Your task to perform on an android device: View the shopping cart on walmart. Add lg ultragear to the cart on walmart, then select checkout. Image 0: 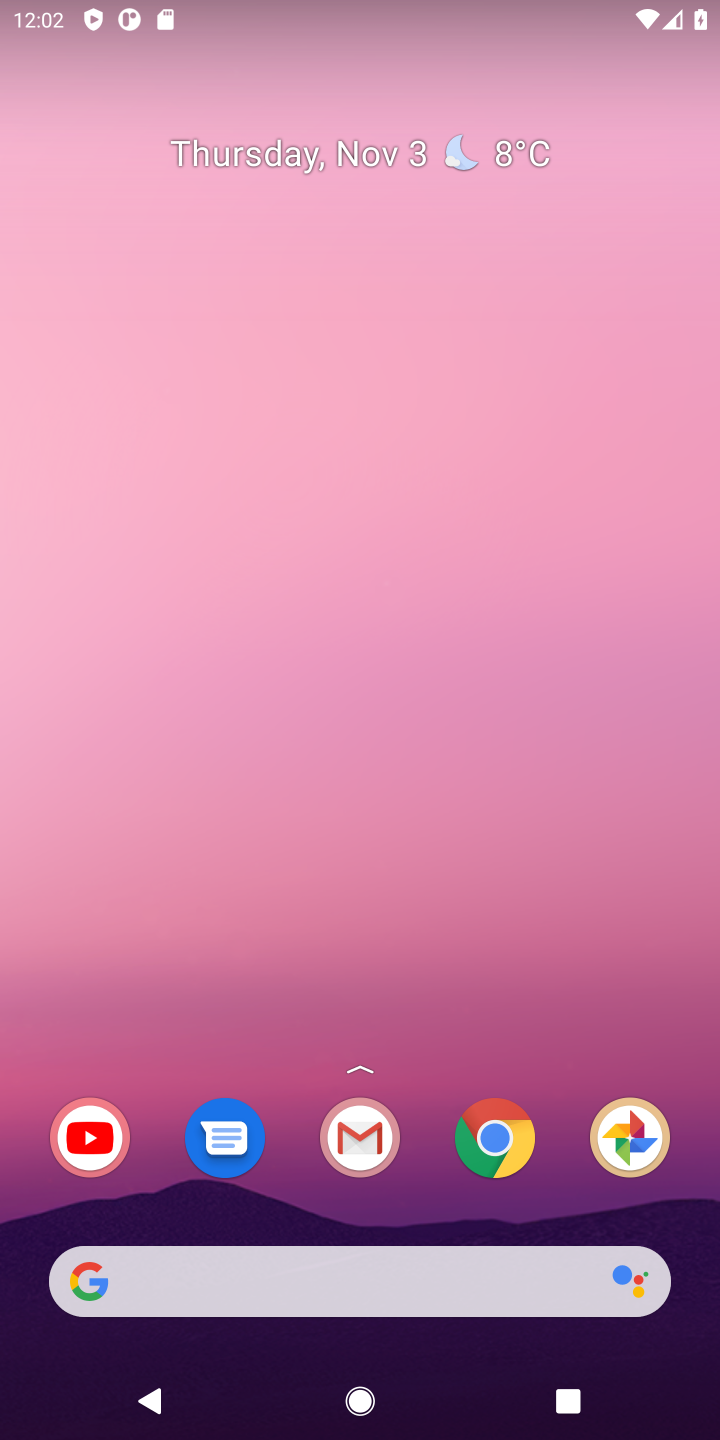
Step 0: click (506, 1111)
Your task to perform on an android device: View the shopping cart on walmart. Add lg ultragear to the cart on walmart, then select checkout. Image 1: 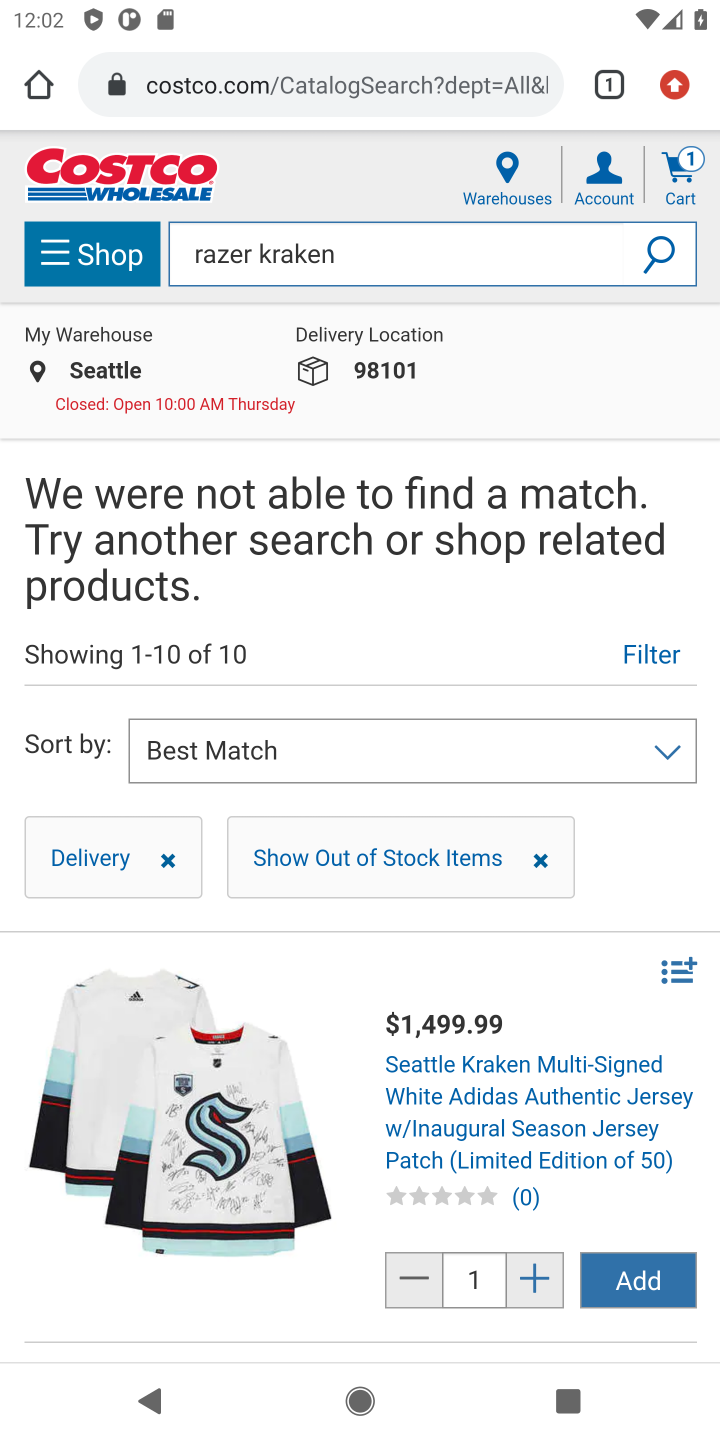
Step 1: click (285, 94)
Your task to perform on an android device: View the shopping cart on walmart. Add lg ultragear to the cart on walmart, then select checkout. Image 2: 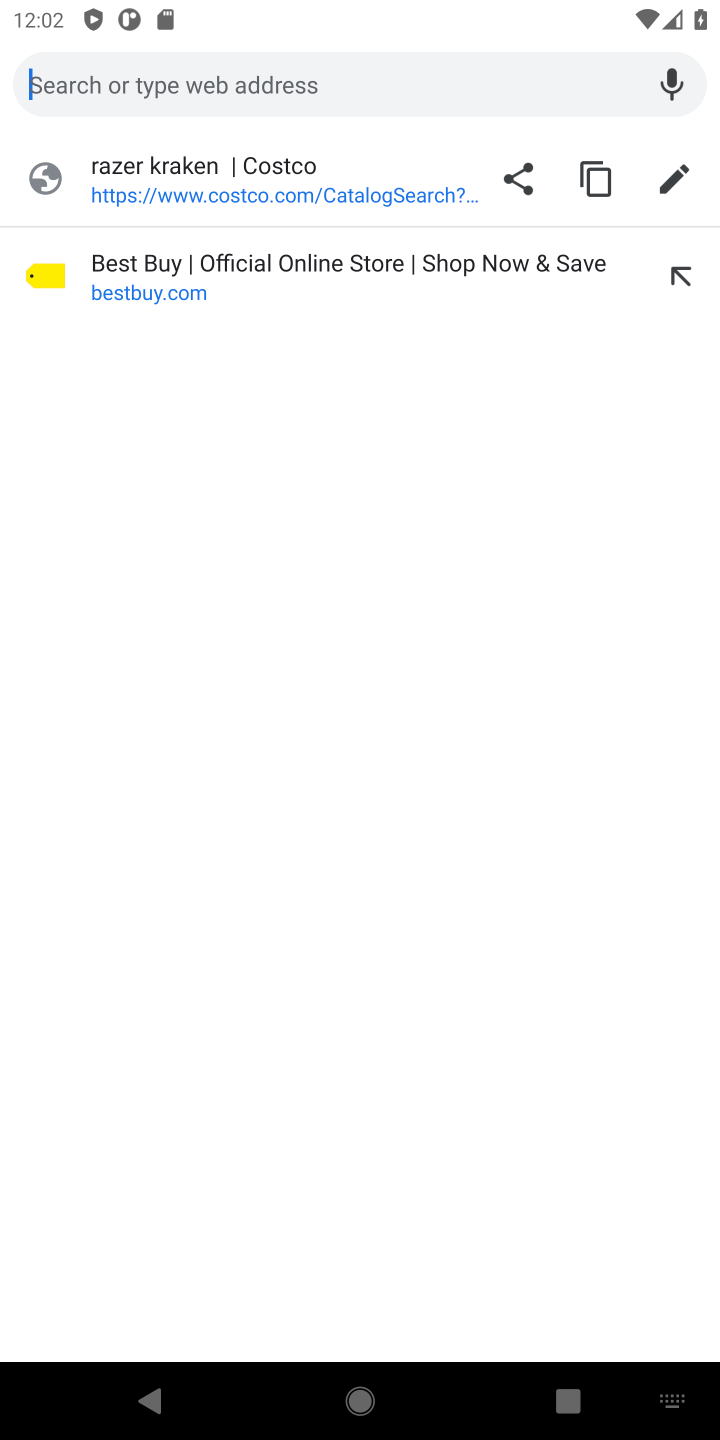
Step 2: type "walmart"
Your task to perform on an android device: View the shopping cart on walmart. Add lg ultragear to the cart on walmart, then select checkout. Image 3: 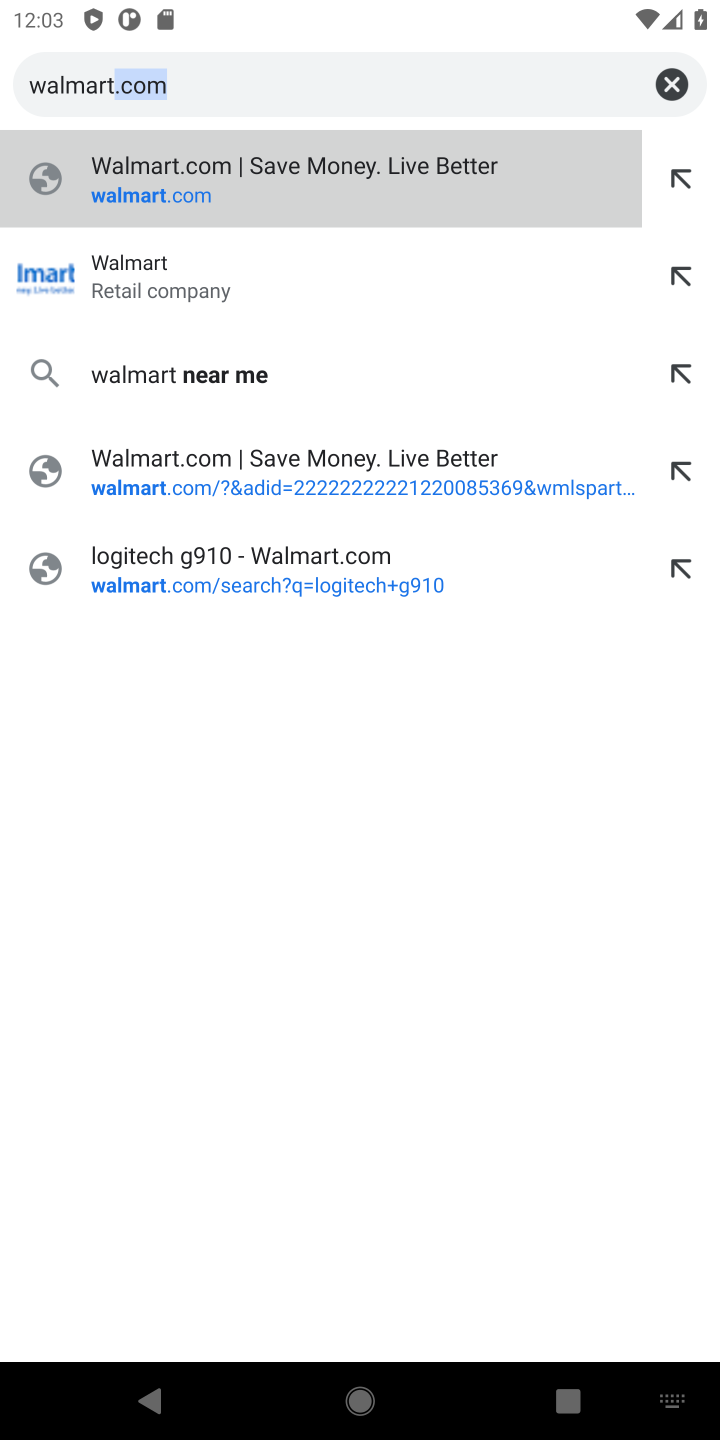
Step 3: click (196, 270)
Your task to perform on an android device: View the shopping cart on walmart. Add lg ultragear to the cart on walmart, then select checkout. Image 4: 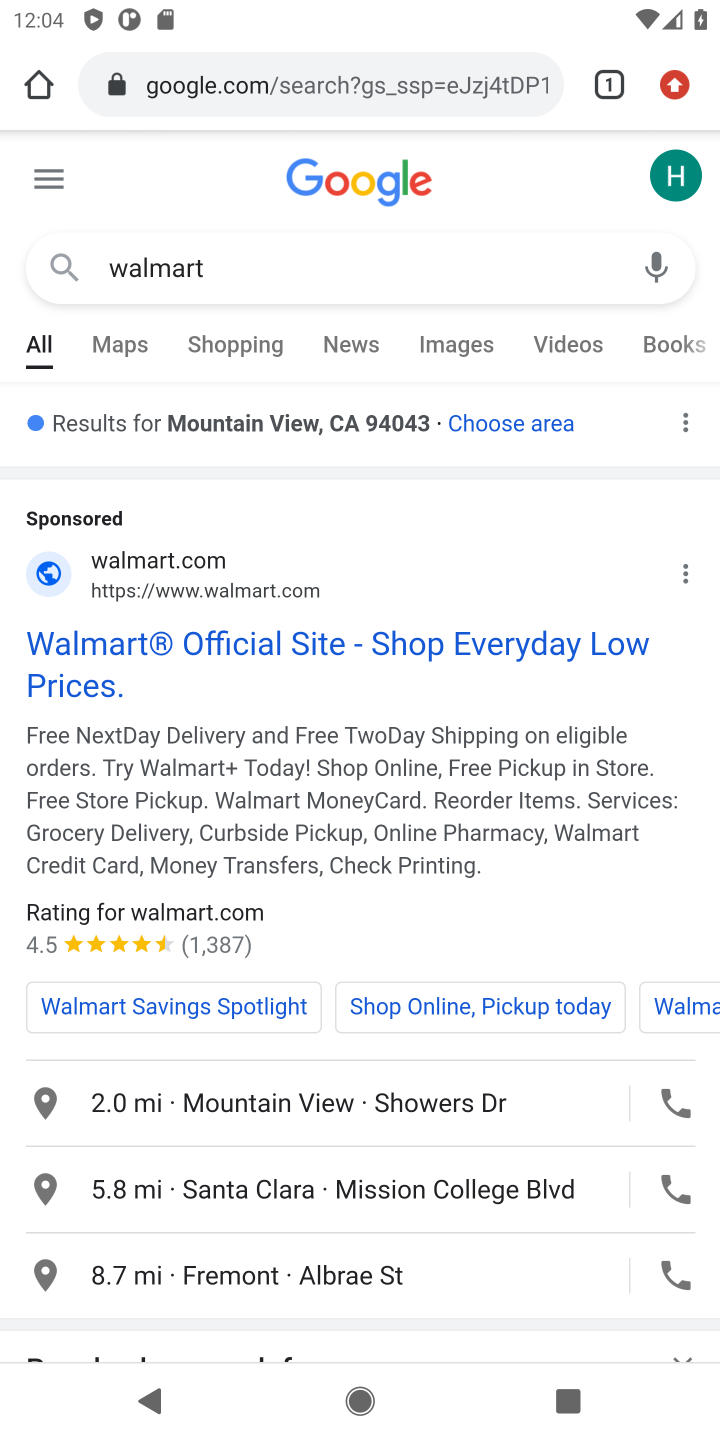
Step 4: click (76, 661)
Your task to perform on an android device: View the shopping cart on walmart. Add lg ultragear to the cart on walmart, then select checkout. Image 5: 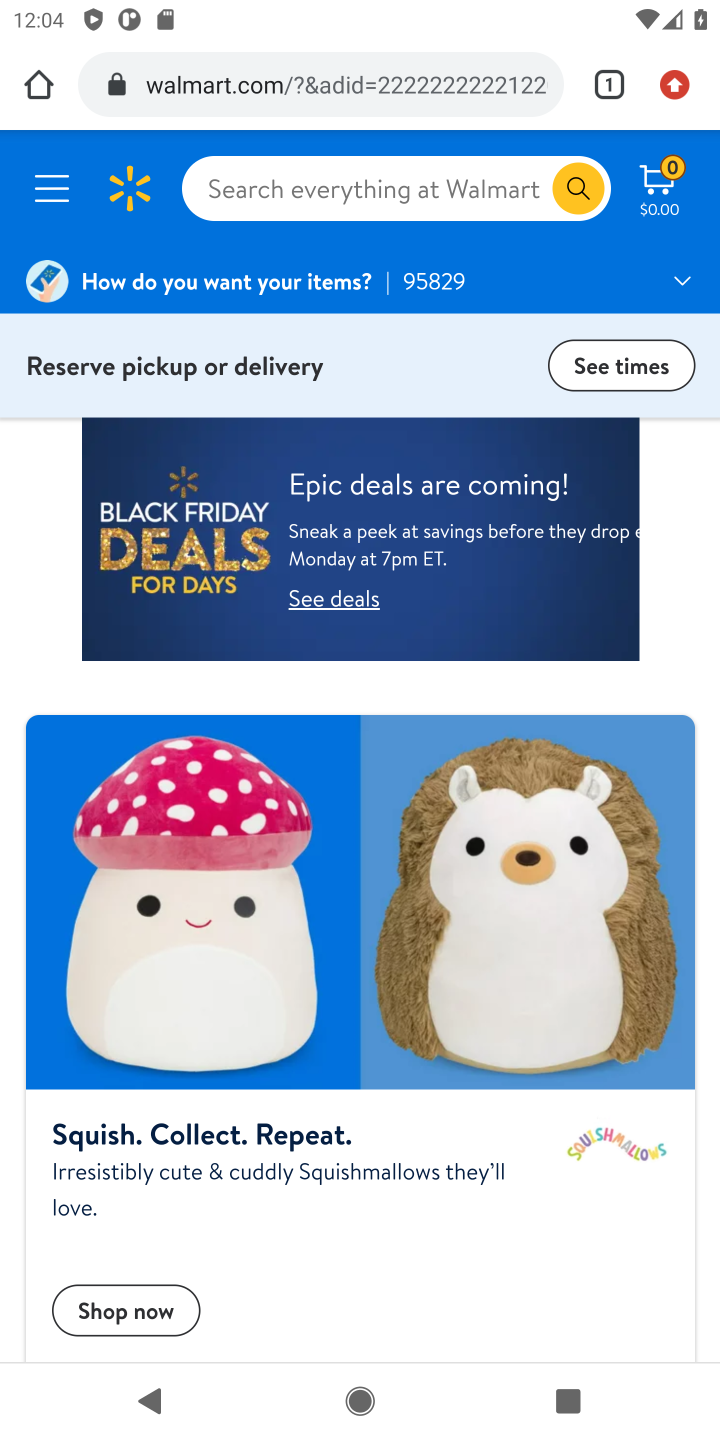
Step 5: click (678, 187)
Your task to perform on an android device: View the shopping cart on walmart. Add lg ultragear to the cart on walmart, then select checkout. Image 6: 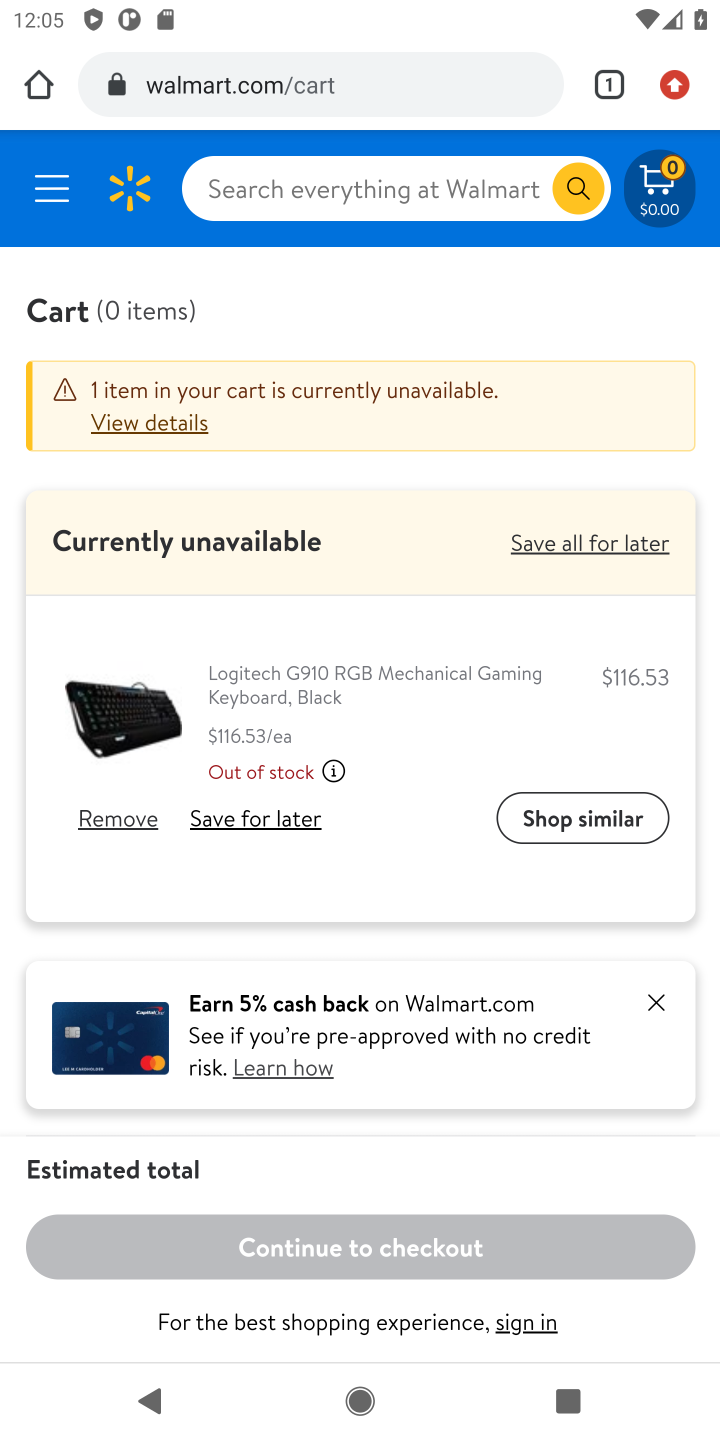
Step 6: click (672, 194)
Your task to perform on an android device: View the shopping cart on walmart. Add lg ultragear to the cart on walmart, then select checkout. Image 7: 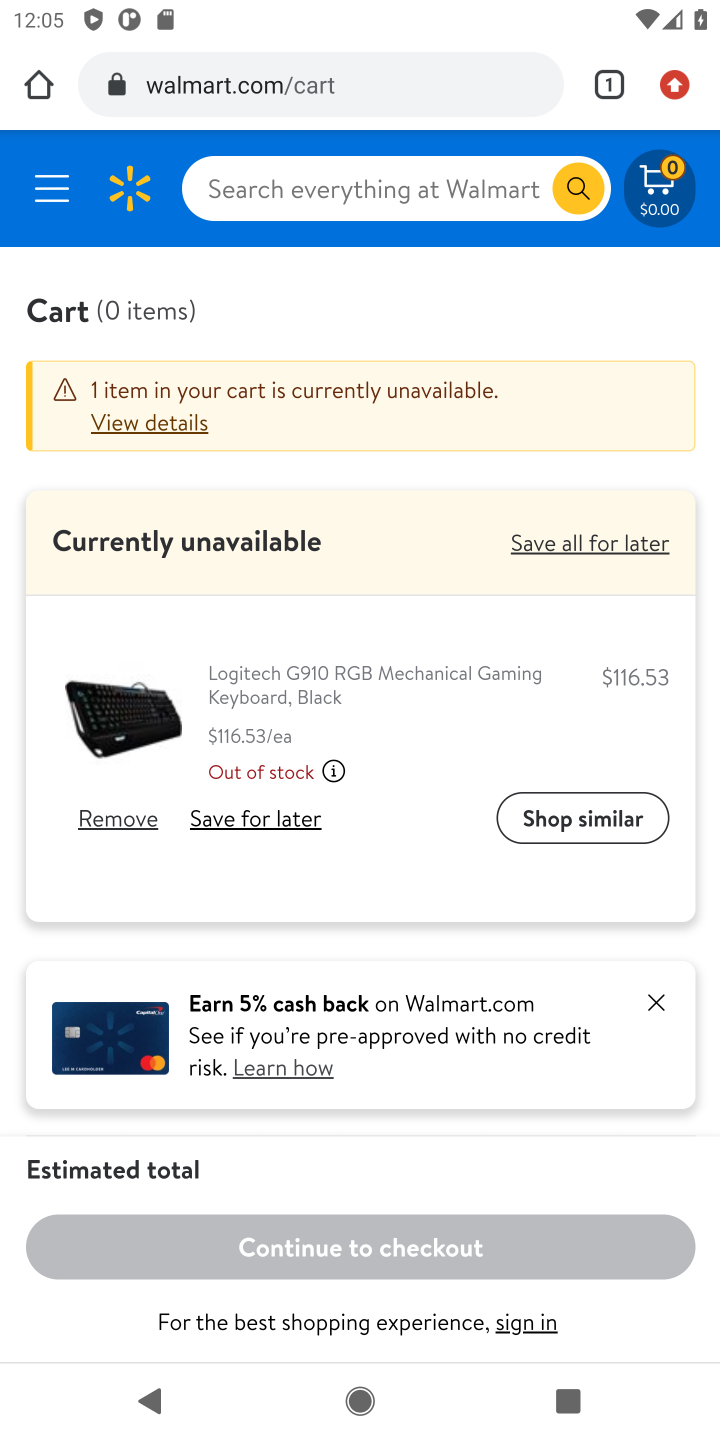
Step 7: click (422, 202)
Your task to perform on an android device: View the shopping cart on walmart. Add lg ultragear to the cart on walmart, then select checkout. Image 8: 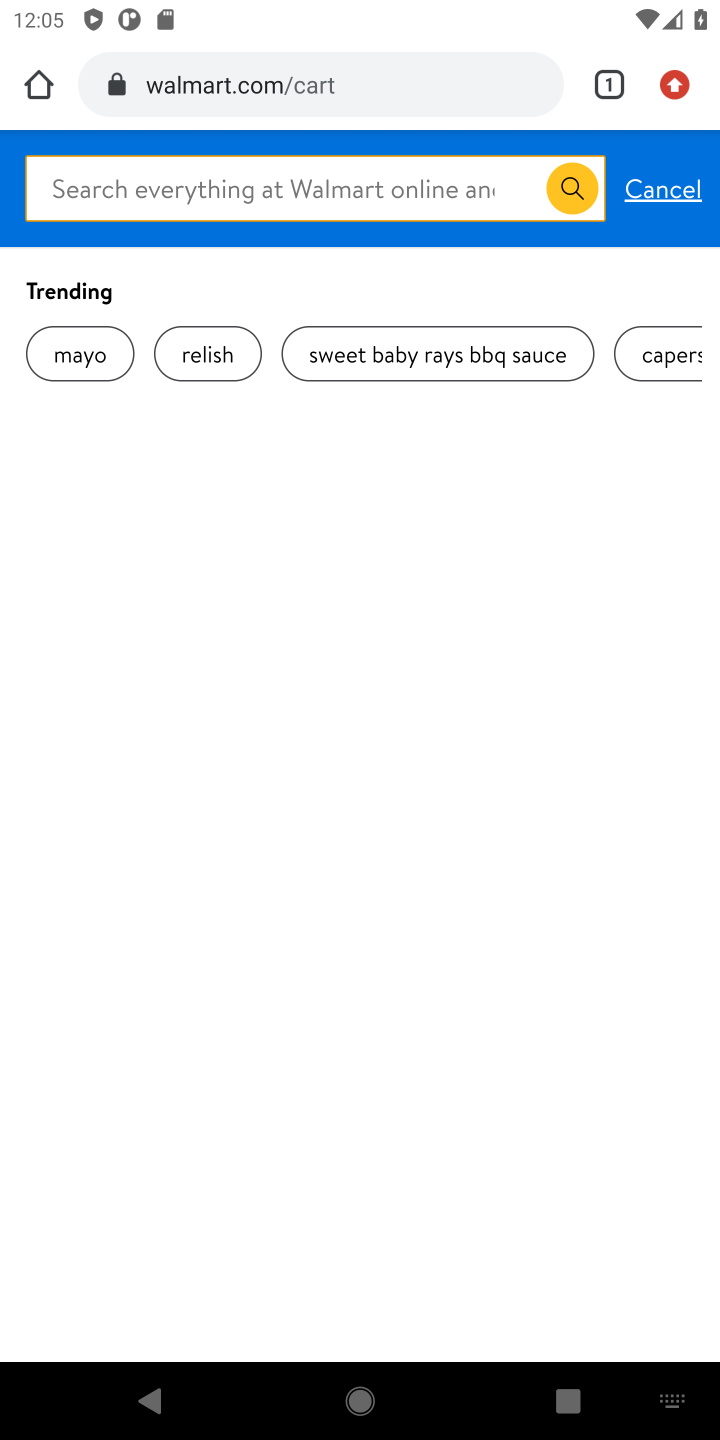
Step 8: click (381, 196)
Your task to perform on an android device: View the shopping cart on walmart. Add lg ultragear to the cart on walmart, then select checkout. Image 9: 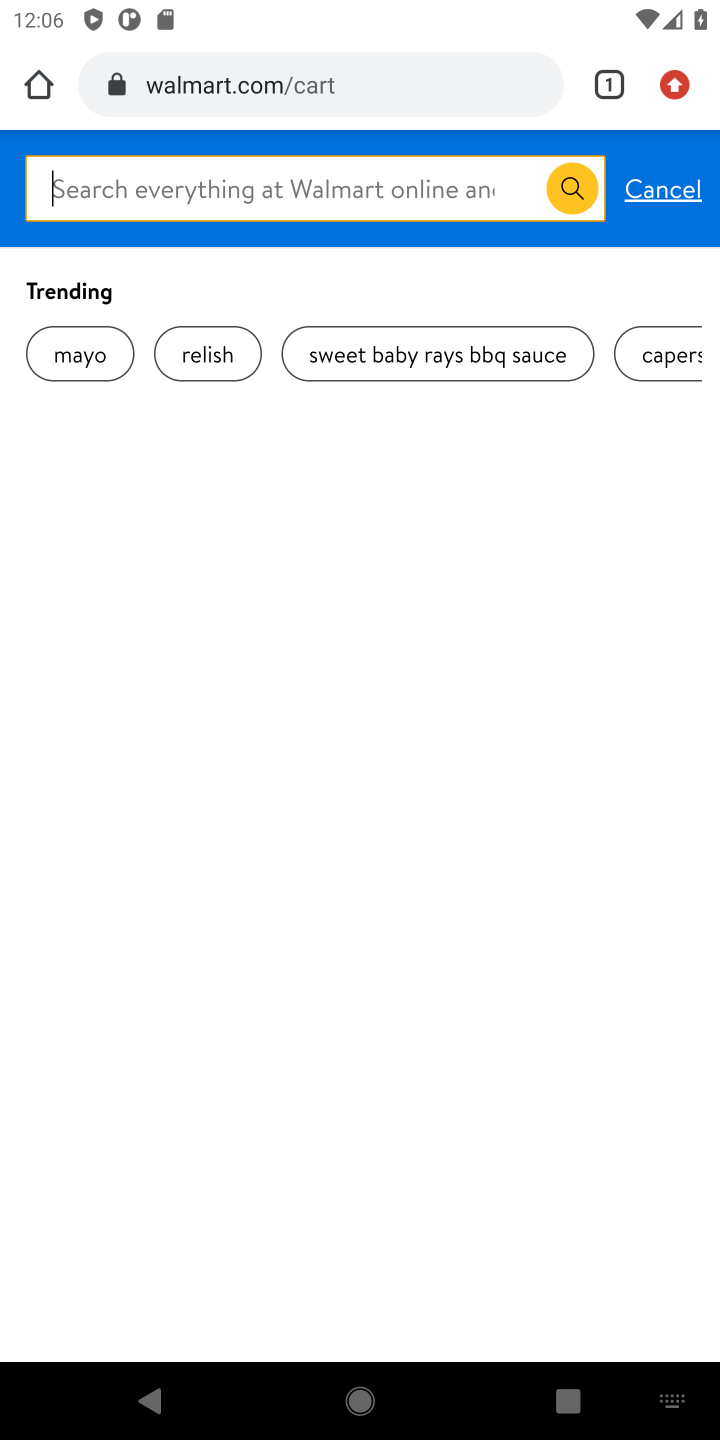
Step 9: type "lg ultragear"
Your task to perform on an android device: View the shopping cart on walmart. Add lg ultragear to the cart on walmart, then select checkout. Image 10: 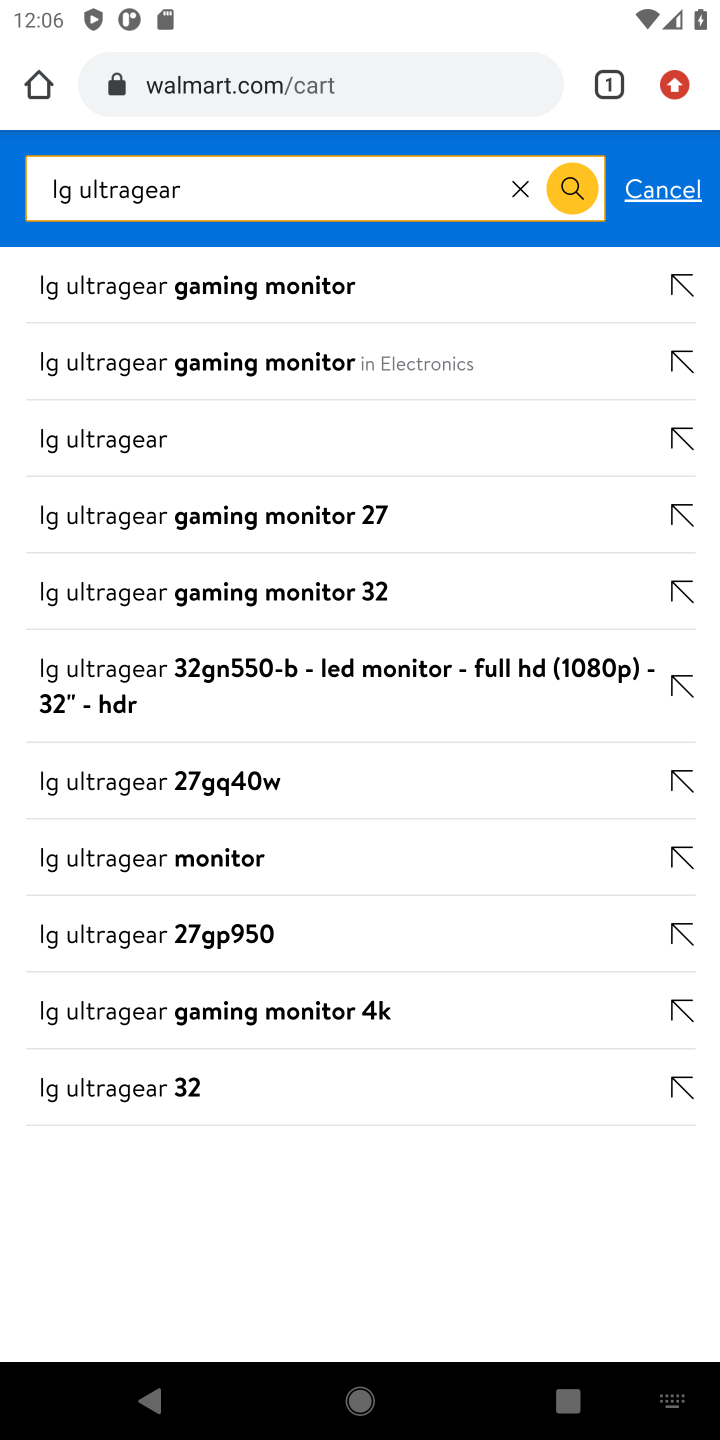
Step 10: click (575, 171)
Your task to perform on an android device: View the shopping cart on walmart. Add lg ultragear to the cart on walmart, then select checkout. Image 11: 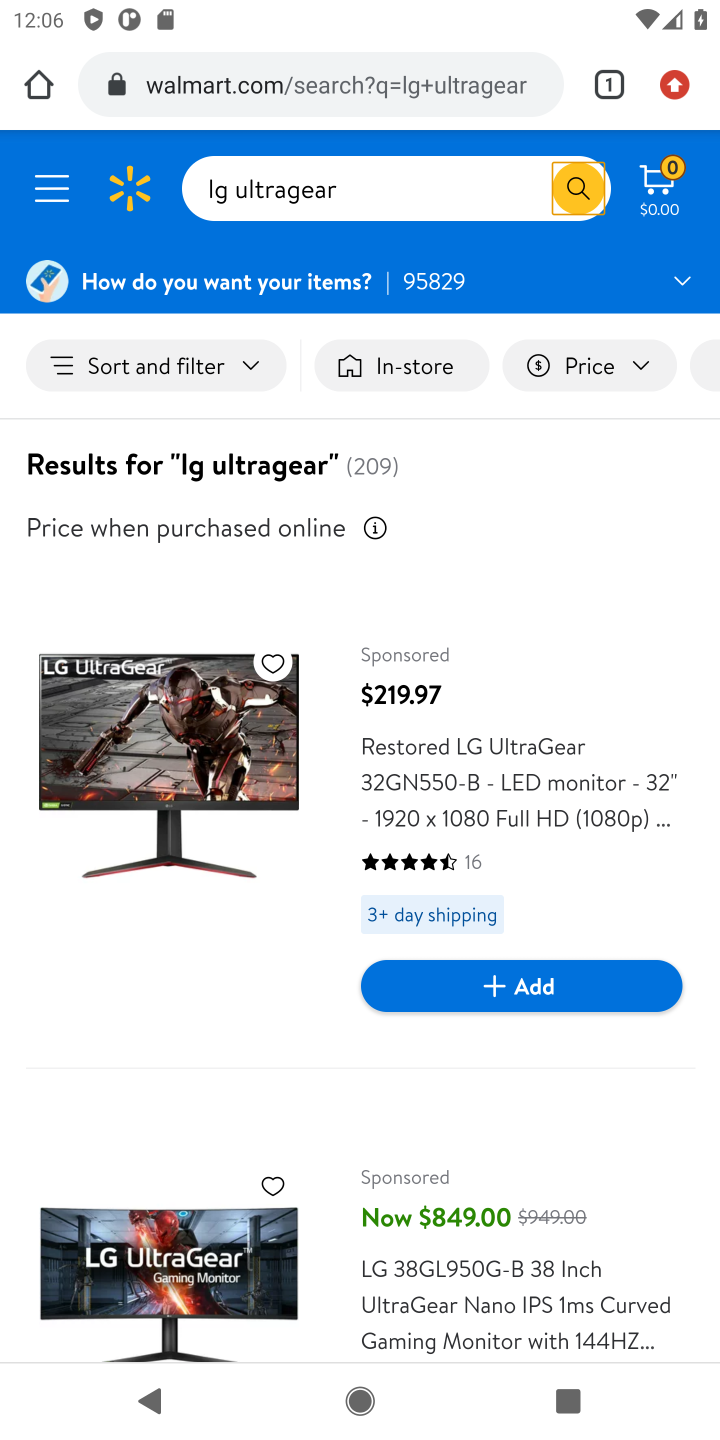
Step 11: click (552, 993)
Your task to perform on an android device: View the shopping cart on walmart. Add lg ultragear to the cart on walmart, then select checkout. Image 12: 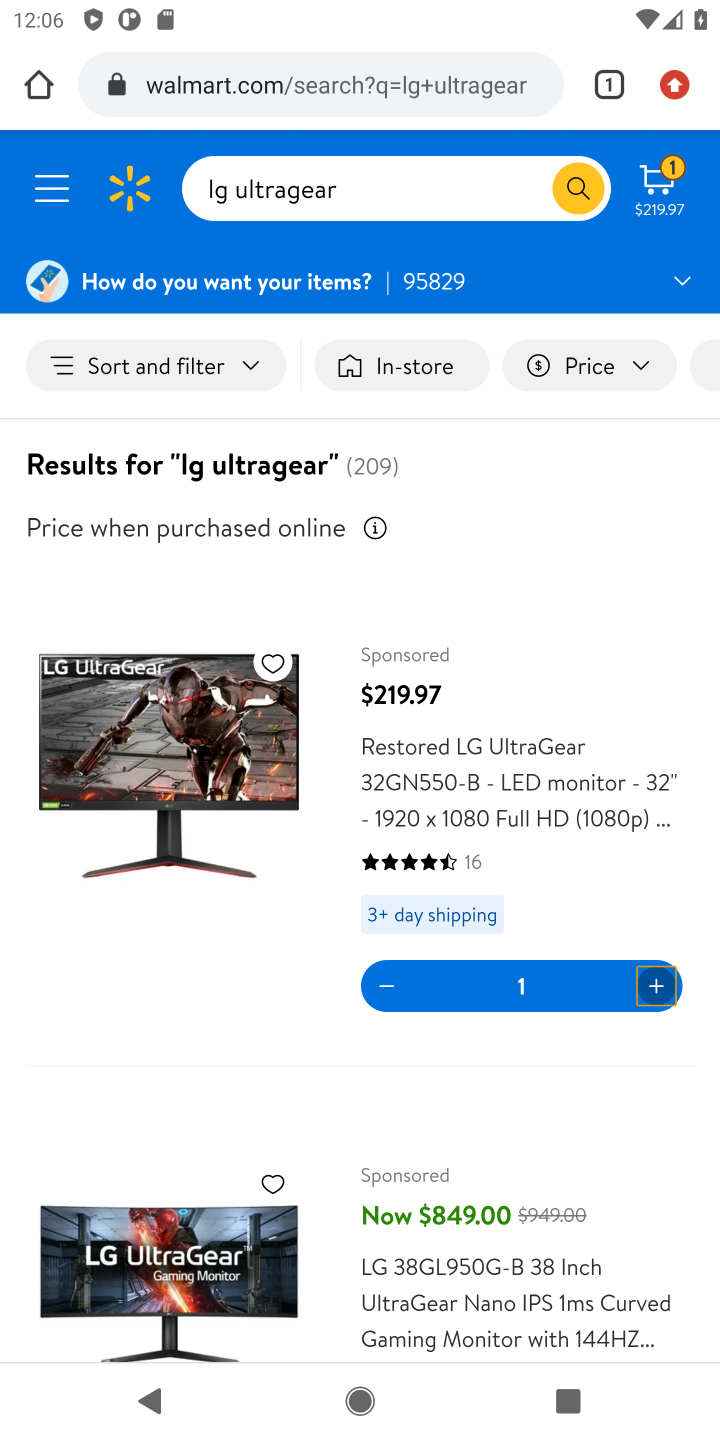
Step 12: click (681, 170)
Your task to perform on an android device: View the shopping cart on walmart. Add lg ultragear to the cart on walmart, then select checkout. Image 13: 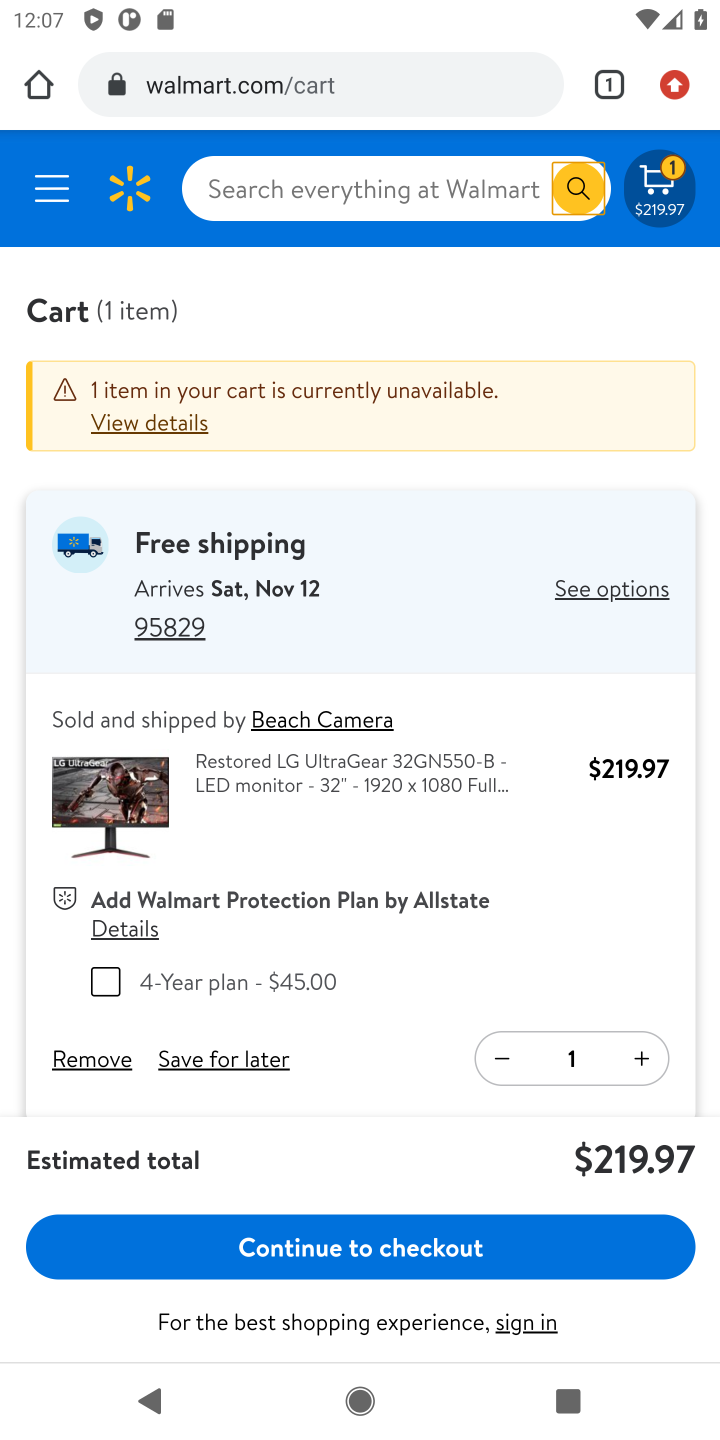
Step 13: click (521, 1267)
Your task to perform on an android device: View the shopping cart on walmart. Add lg ultragear to the cart on walmart, then select checkout. Image 14: 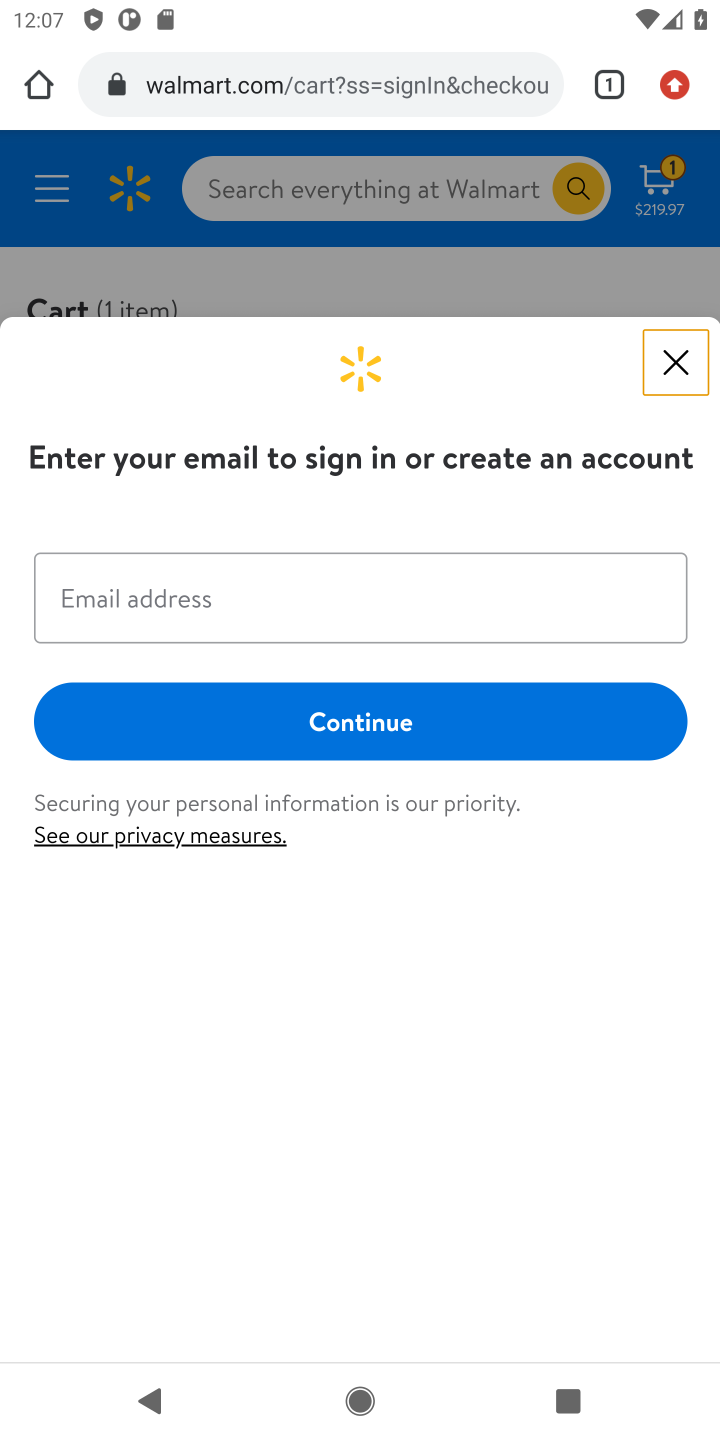
Step 14: task complete